Your task to perform on an android device: Open settings Image 0: 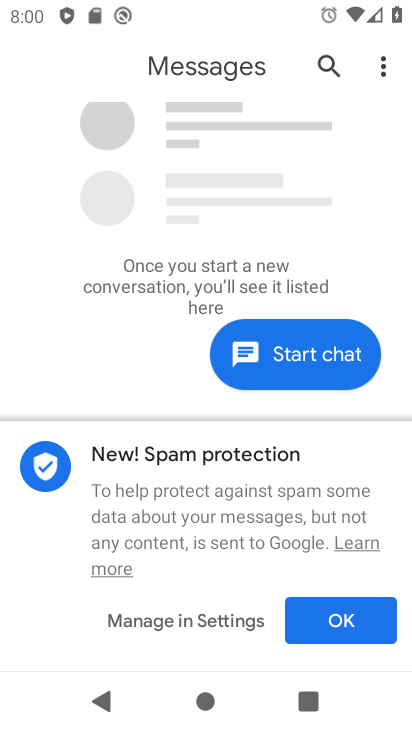
Step 0: press home button
Your task to perform on an android device: Open settings Image 1: 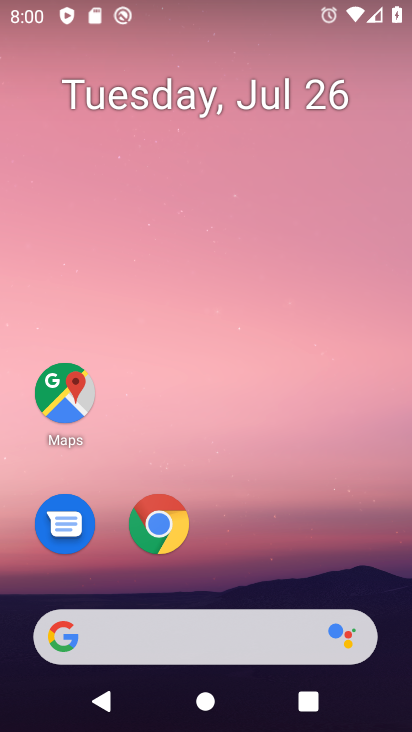
Step 1: drag from (260, 562) to (274, 24)
Your task to perform on an android device: Open settings Image 2: 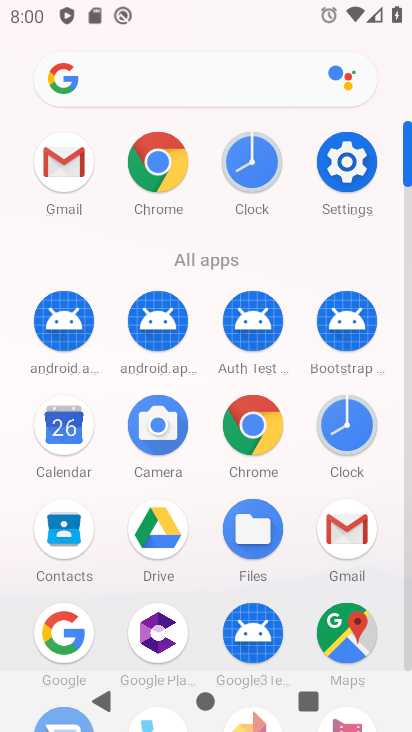
Step 2: click (358, 164)
Your task to perform on an android device: Open settings Image 3: 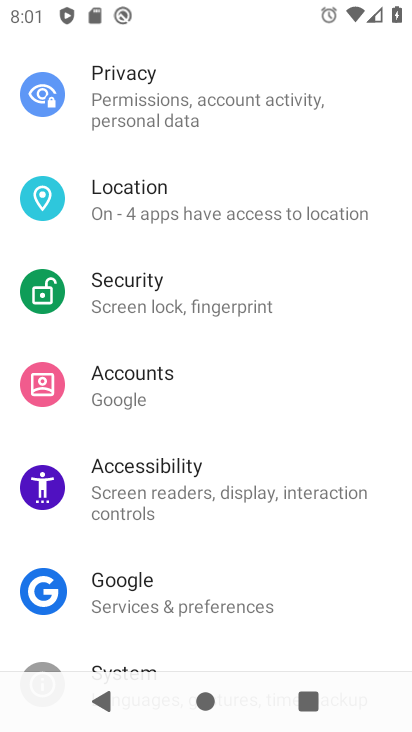
Step 3: task complete